Your task to perform on an android device: Open Chrome and go to the settings page Image 0: 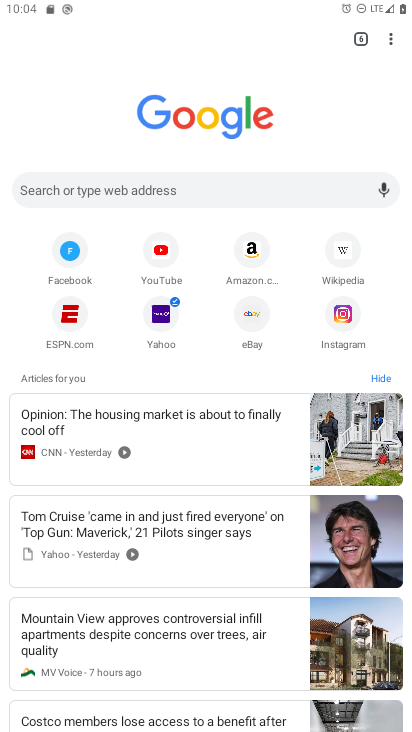
Step 0: click (387, 38)
Your task to perform on an android device: Open Chrome and go to the settings page Image 1: 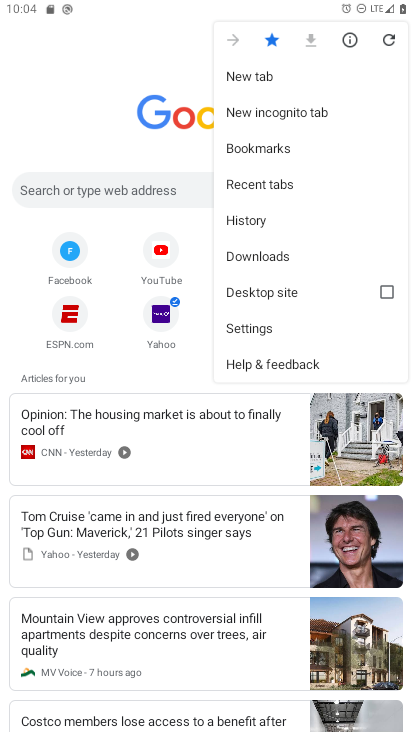
Step 1: click (246, 327)
Your task to perform on an android device: Open Chrome and go to the settings page Image 2: 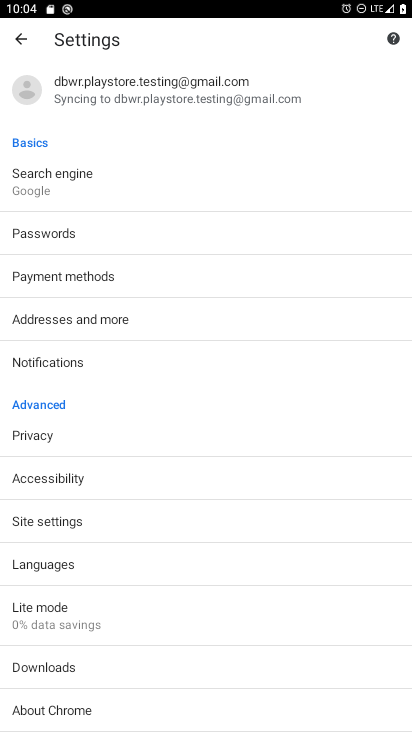
Step 2: task complete